Your task to perform on an android device: turn off sleep mode Image 0: 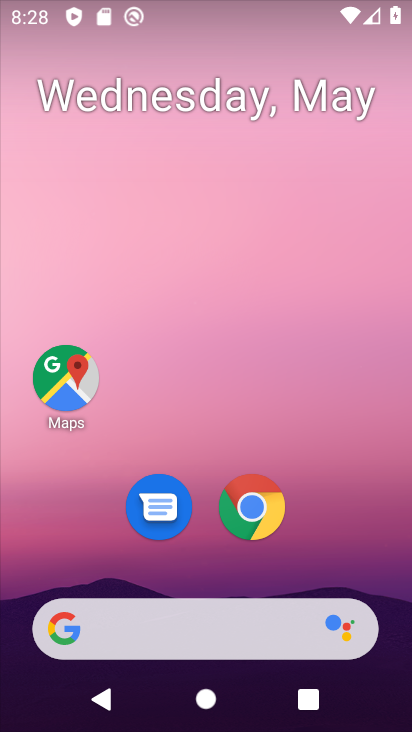
Step 0: press home button
Your task to perform on an android device: turn off sleep mode Image 1: 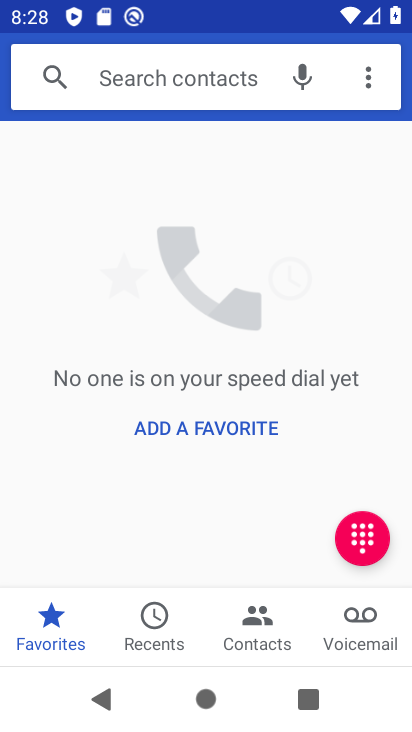
Step 1: press home button
Your task to perform on an android device: turn off sleep mode Image 2: 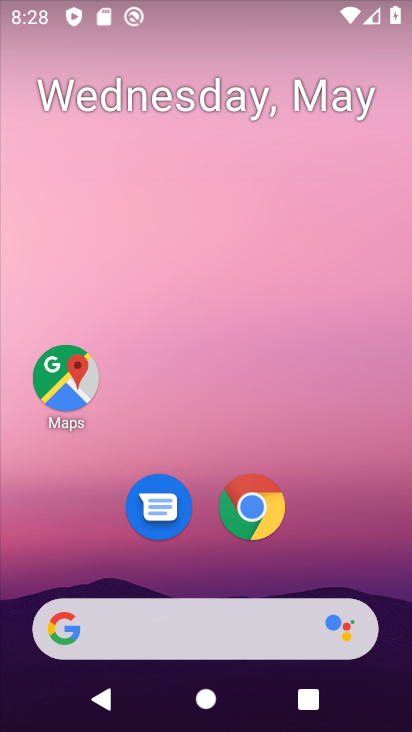
Step 2: drag from (362, 497) to (410, 51)
Your task to perform on an android device: turn off sleep mode Image 3: 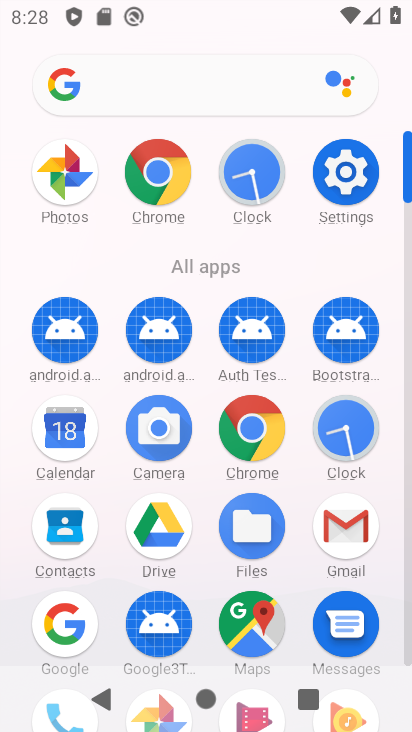
Step 3: click (362, 152)
Your task to perform on an android device: turn off sleep mode Image 4: 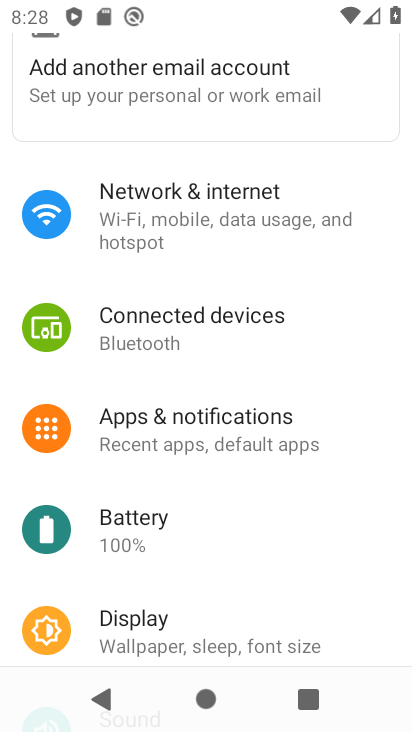
Step 4: drag from (214, 439) to (239, 325)
Your task to perform on an android device: turn off sleep mode Image 5: 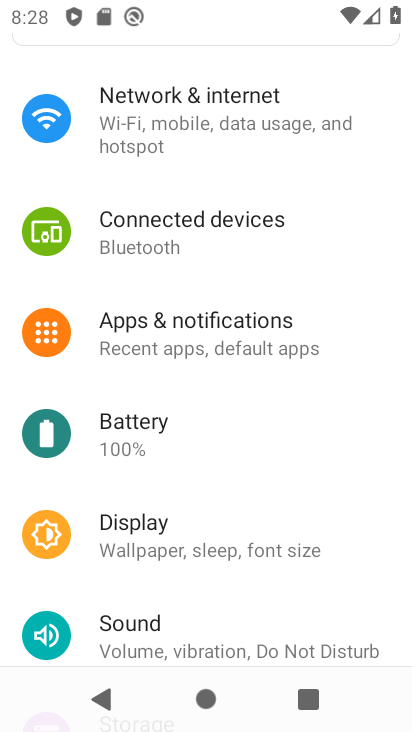
Step 5: click (138, 526)
Your task to perform on an android device: turn off sleep mode Image 6: 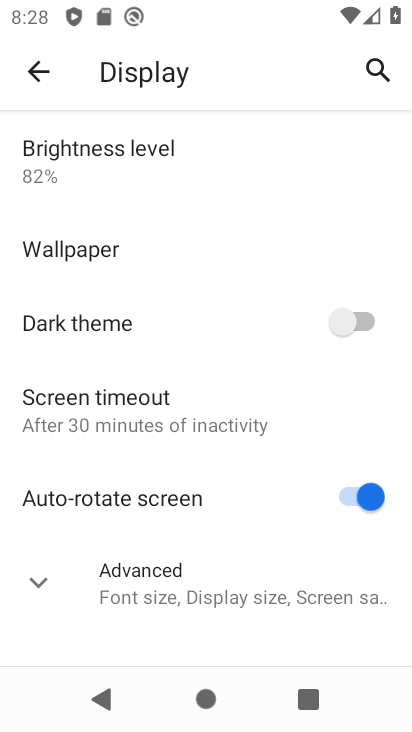
Step 6: click (184, 579)
Your task to perform on an android device: turn off sleep mode Image 7: 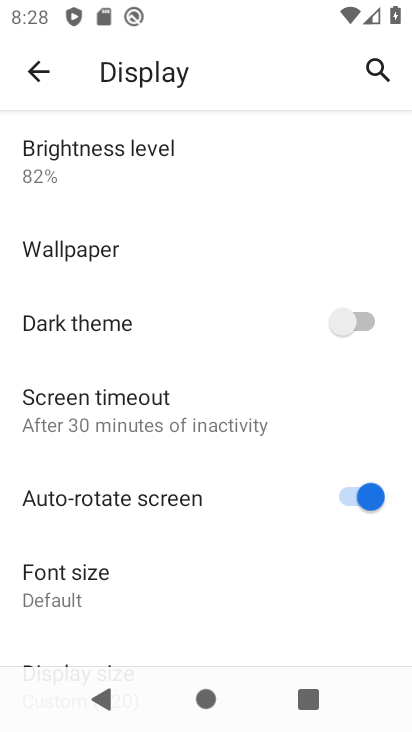
Step 7: task complete